Your task to perform on an android device: change keyboard looks Image 0: 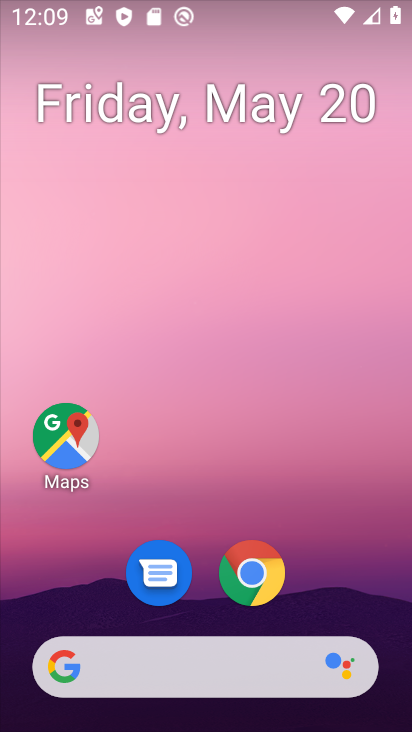
Step 0: drag from (200, 516) to (201, 97)
Your task to perform on an android device: change keyboard looks Image 1: 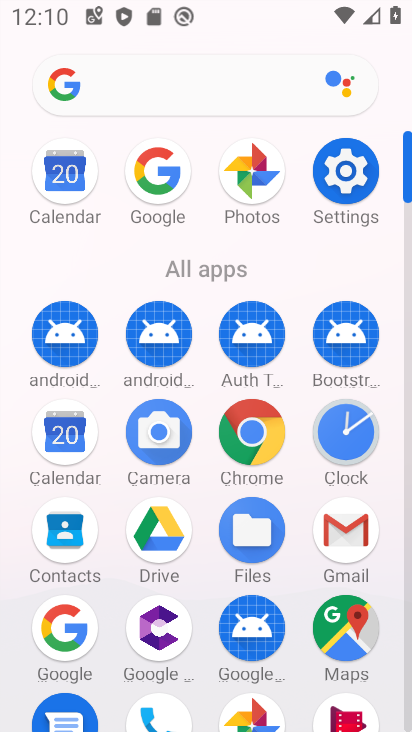
Step 1: click (336, 169)
Your task to perform on an android device: change keyboard looks Image 2: 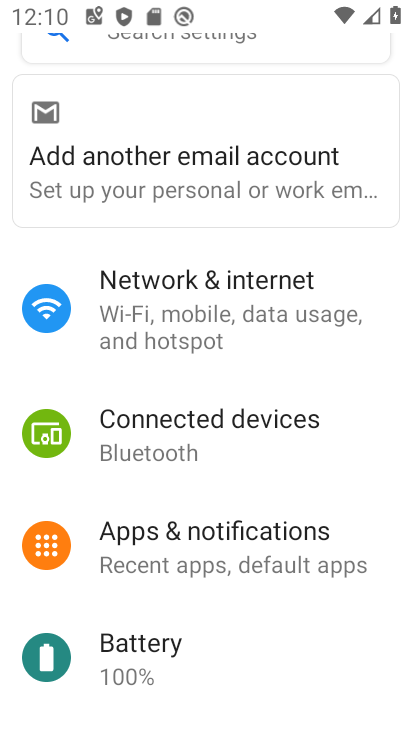
Step 2: drag from (260, 571) to (276, 106)
Your task to perform on an android device: change keyboard looks Image 3: 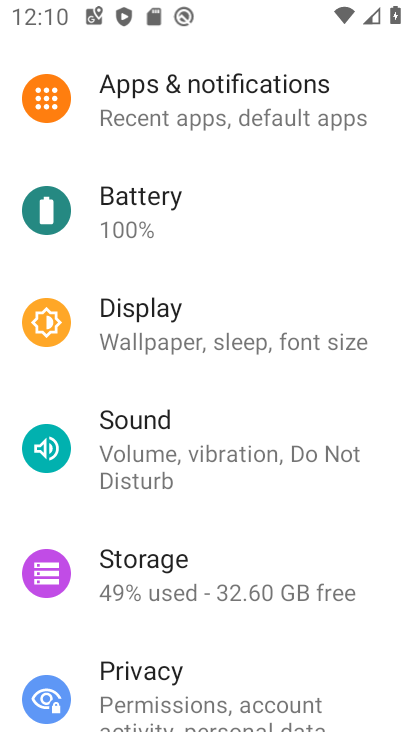
Step 3: drag from (267, 539) to (254, 28)
Your task to perform on an android device: change keyboard looks Image 4: 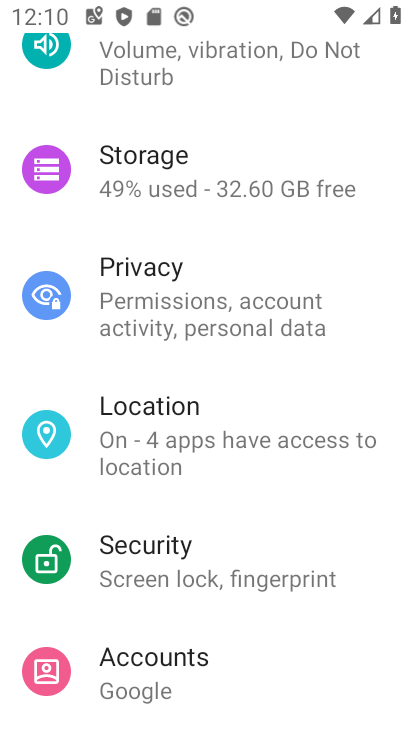
Step 4: drag from (246, 567) to (232, 123)
Your task to perform on an android device: change keyboard looks Image 5: 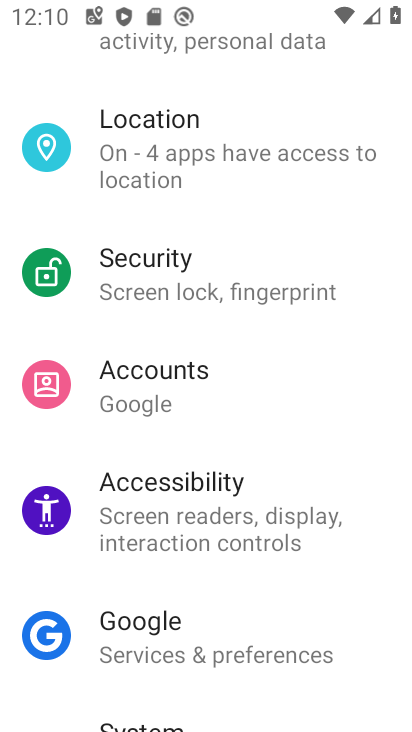
Step 5: drag from (186, 635) to (208, 104)
Your task to perform on an android device: change keyboard looks Image 6: 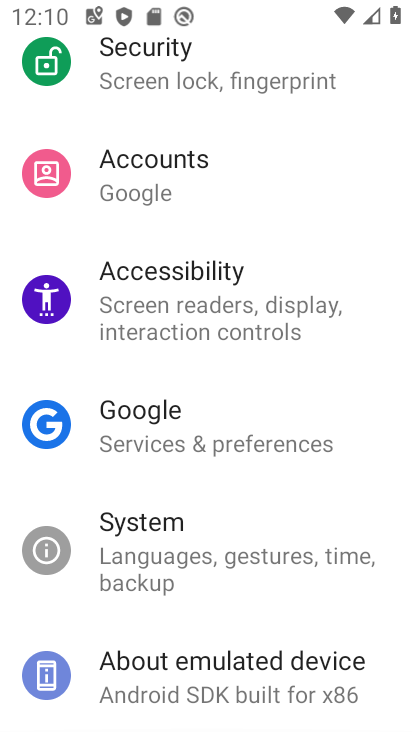
Step 6: click (179, 537)
Your task to perform on an android device: change keyboard looks Image 7: 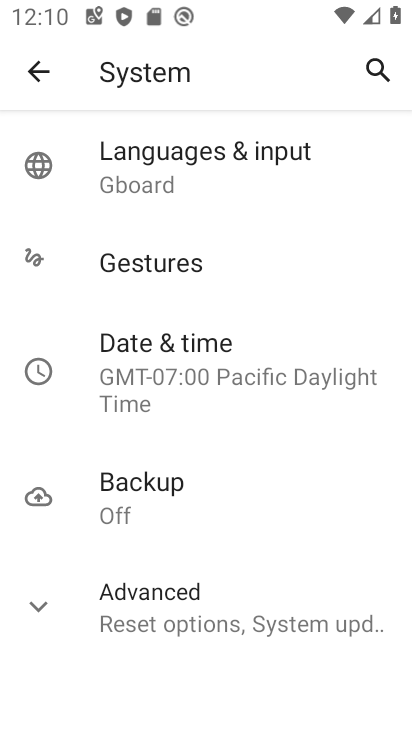
Step 7: click (167, 172)
Your task to perform on an android device: change keyboard looks Image 8: 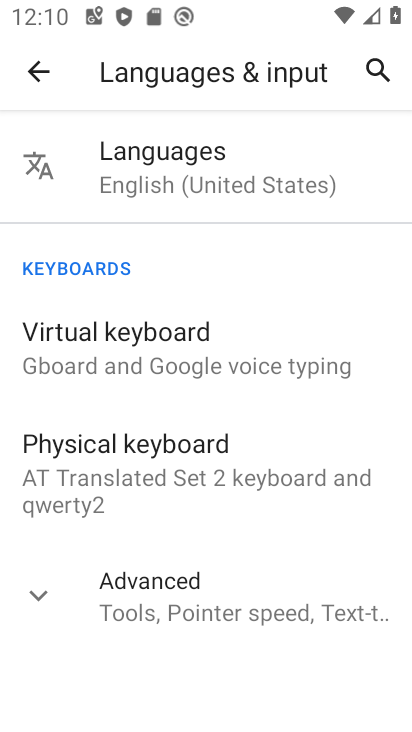
Step 8: click (157, 350)
Your task to perform on an android device: change keyboard looks Image 9: 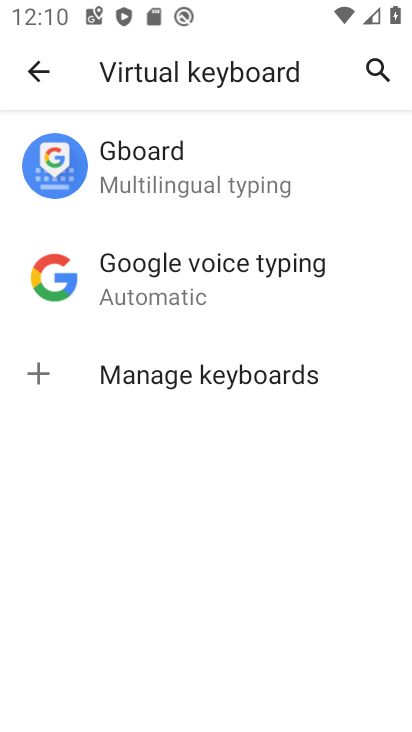
Step 9: click (144, 180)
Your task to perform on an android device: change keyboard looks Image 10: 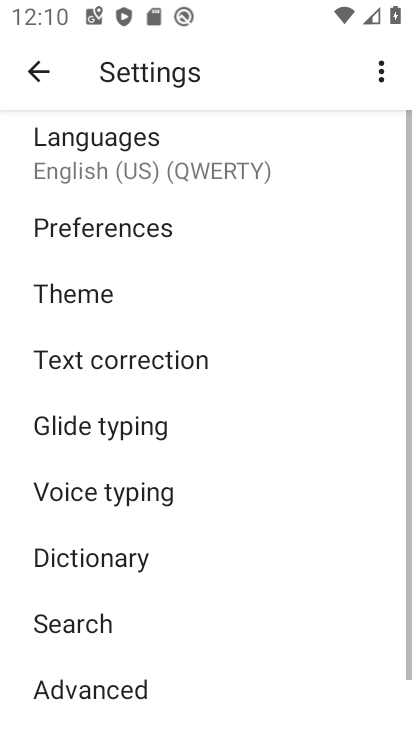
Step 10: click (111, 299)
Your task to perform on an android device: change keyboard looks Image 11: 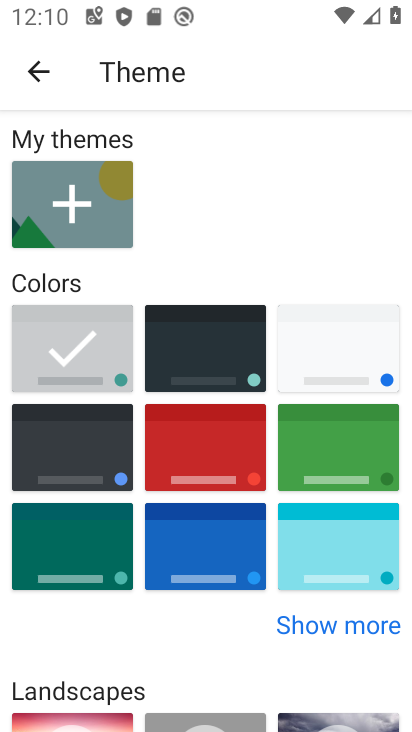
Step 11: click (215, 364)
Your task to perform on an android device: change keyboard looks Image 12: 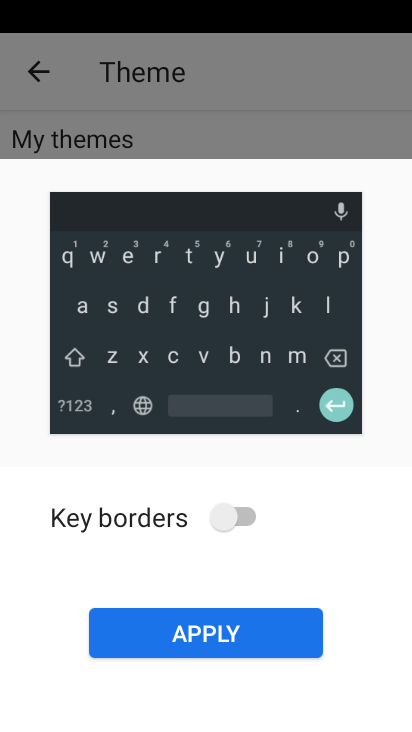
Step 12: click (190, 636)
Your task to perform on an android device: change keyboard looks Image 13: 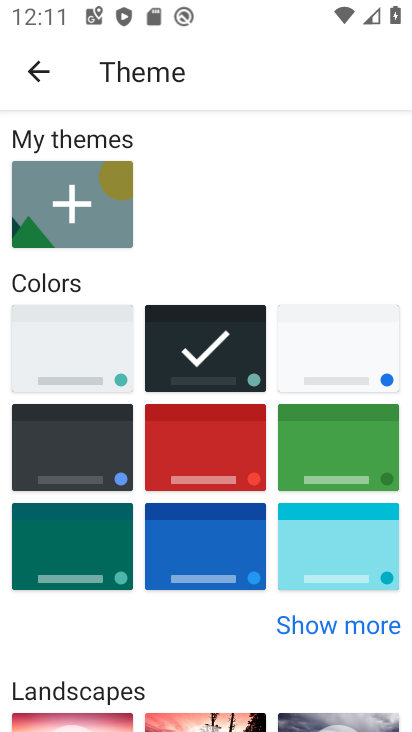
Step 13: task complete